Your task to perform on an android device: check out phone information Image 0: 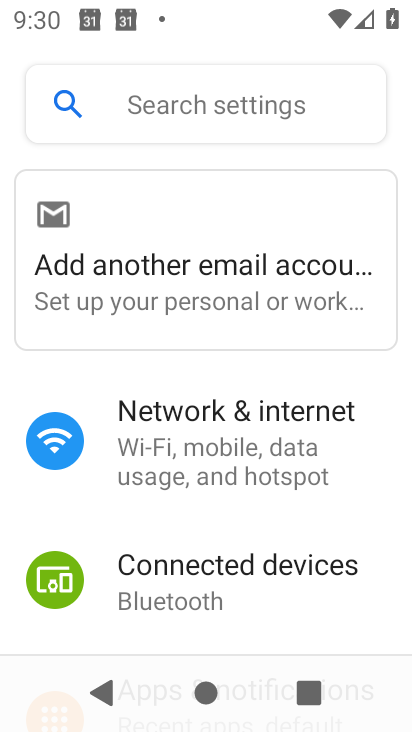
Step 0: drag from (214, 588) to (204, 163)
Your task to perform on an android device: check out phone information Image 1: 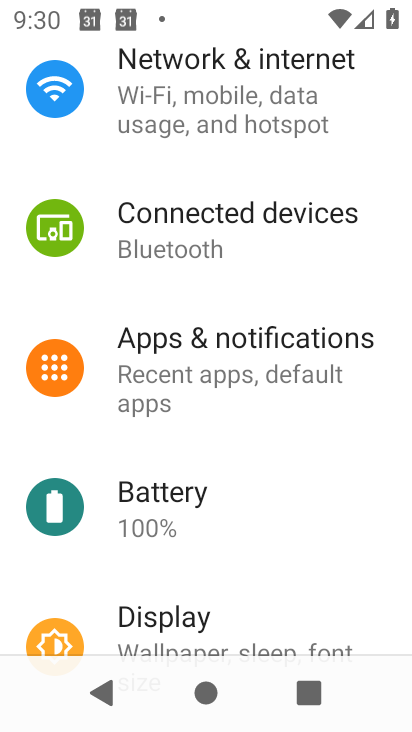
Step 1: drag from (279, 634) to (273, 360)
Your task to perform on an android device: check out phone information Image 2: 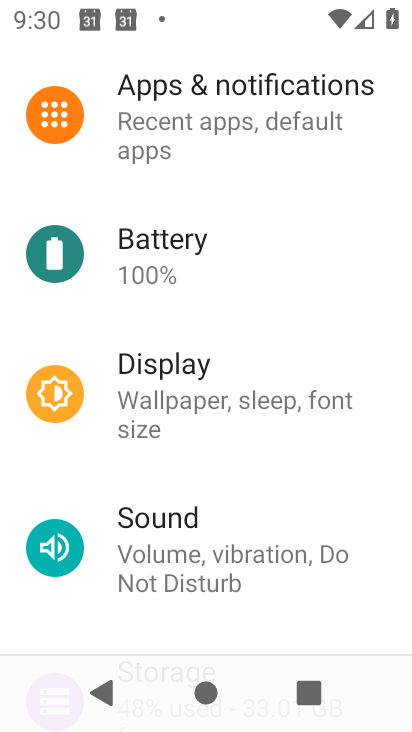
Step 2: drag from (173, 624) to (191, 417)
Your task to perform on an android device: check out phone information Image 3: 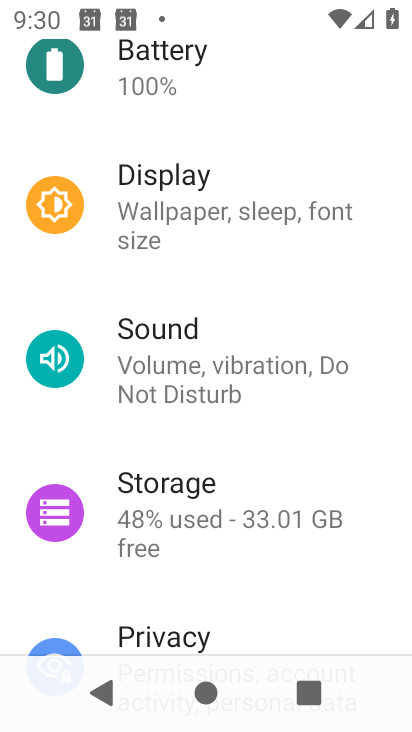
Step 3: drag from (204, 595) to (238, 200)
Your task to perform on an android device: check out phone information Image 4: 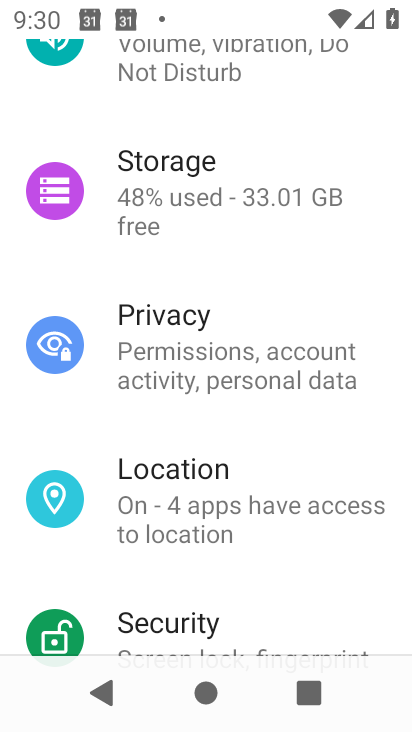
Step 4: drag from (253, 566) to (239, 300)
Your task to perform on an android device: check out phone information Image 5: 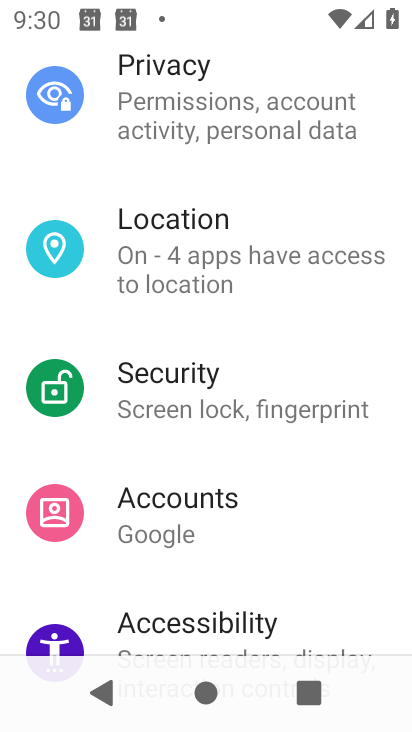
Step 5: drag from (296, 546) to (268, 270)
Your task to perform on an android device: check out phone information Image 6: 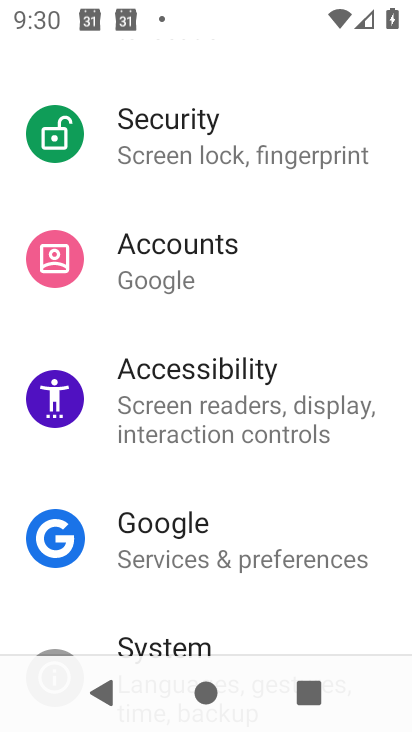
Step 6: drag from (181, 587) to (211, 306)
Your task to perform on an android device: check out phone information Image 7: 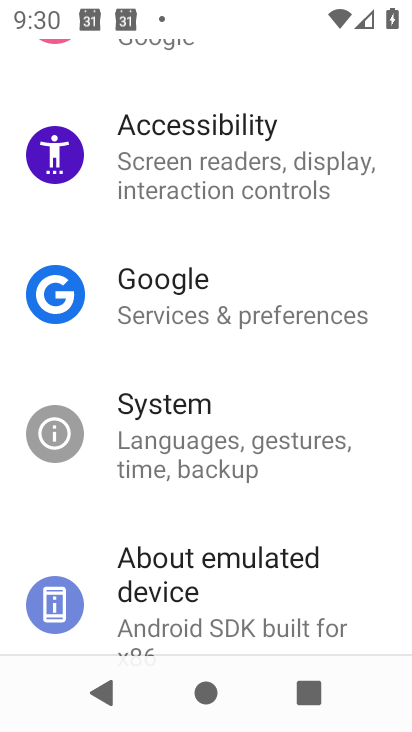
Step 7: click (204, 564)
Your task to perform on an android device: check out phone information Image 8: 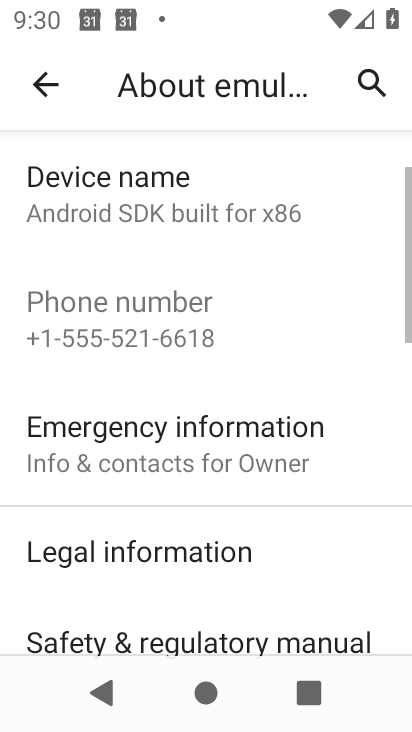
Step 8: task complete